Your task to perform on an android device: What is the recent news? Image 0: 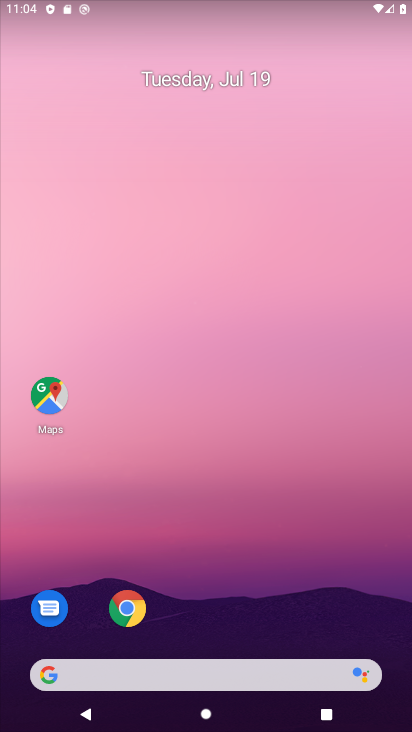
Step 0: click (46, 675)
Your task to perform on an android device: What is the recent news? Image 1: 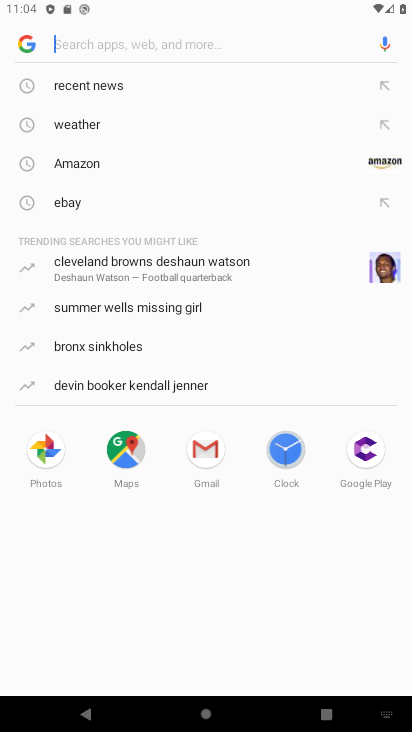
Step 1: click (102, 84)
Your task to perform on an android device: What is the recent news? Image 2: 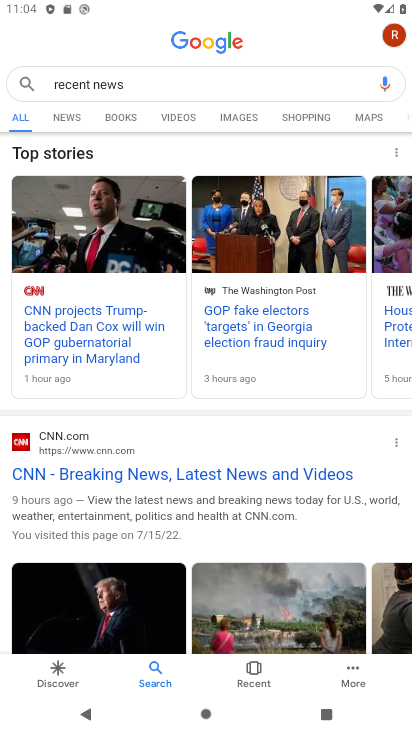
Step 2: task complete